Your task to perform on an android device: What's the weather today? Image 0: 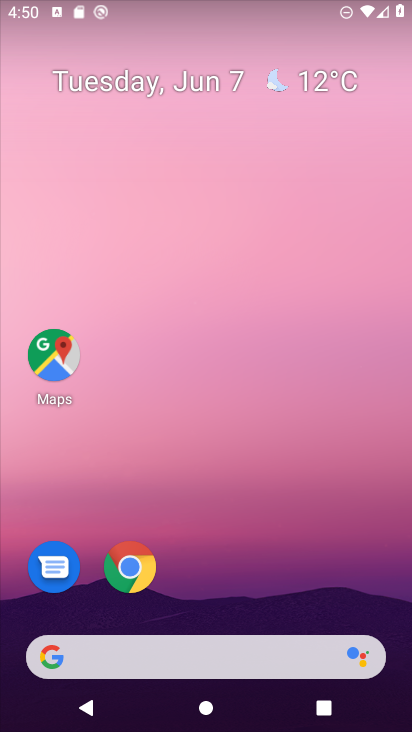
Step 0: drag from (12, 260) to (392, 253)
Your task to perform on an android device: What's the weather today? Image 1: 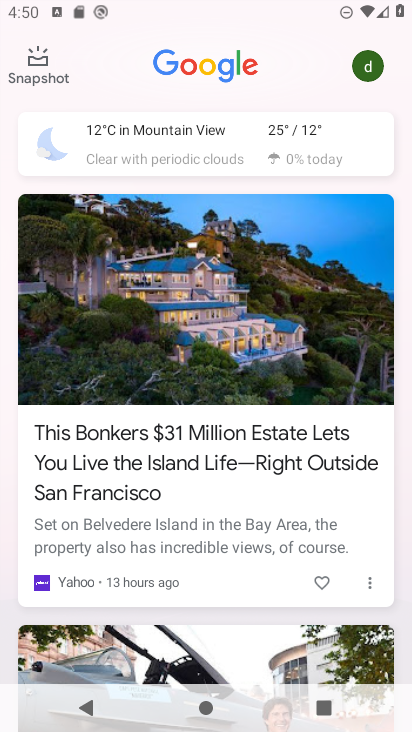
Step 1: click (230, 132)
Your task to perform on an android device: What's the weather today? Image 2: 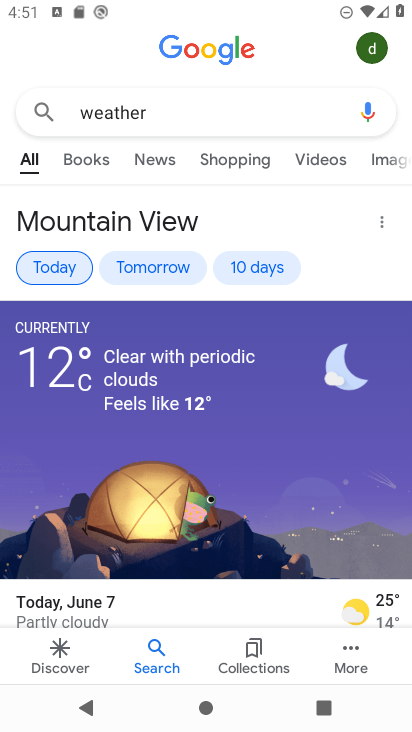
Step 2: task complete